Your task to perform on an android device: Show me the alarms in the clock app Image 0: 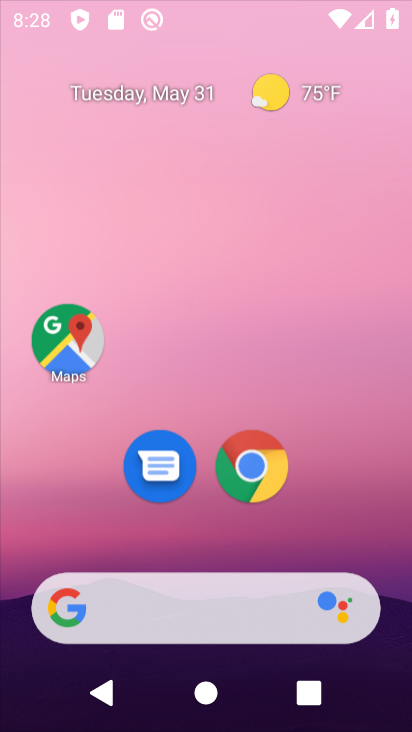
Step 0: click (306, 157)
Your task to perform on an android device: Show me the alarms in the clock app Image 1: 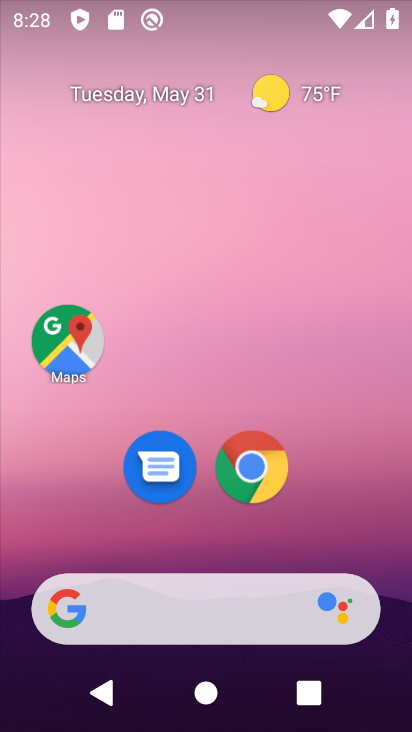
Step 1: drag from (208, 561) to (254, 103)
Your task to perform on an android device: Show me the alarms in the clock app Image 2: 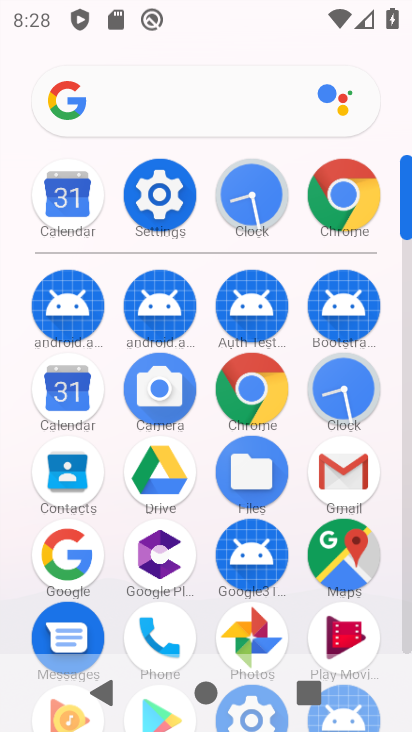
Step 2: click (360, 360)
Your task to perform on an android device: Show me the alarms in the clock app Image 3: 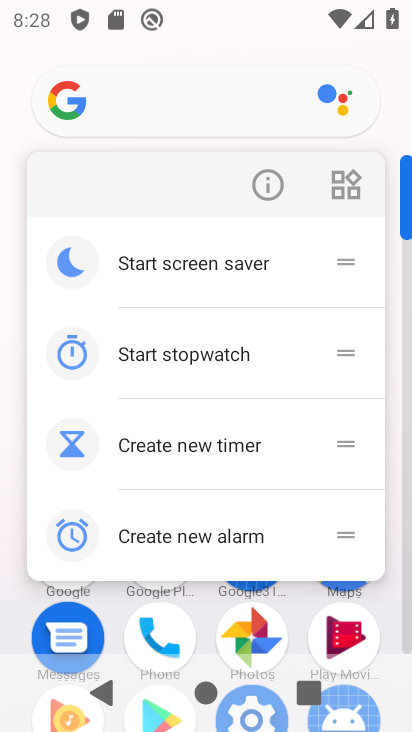
Step 3: click (269, 184)
Your task to perform on an android device: Show me the alarms in the clock app Image 4: 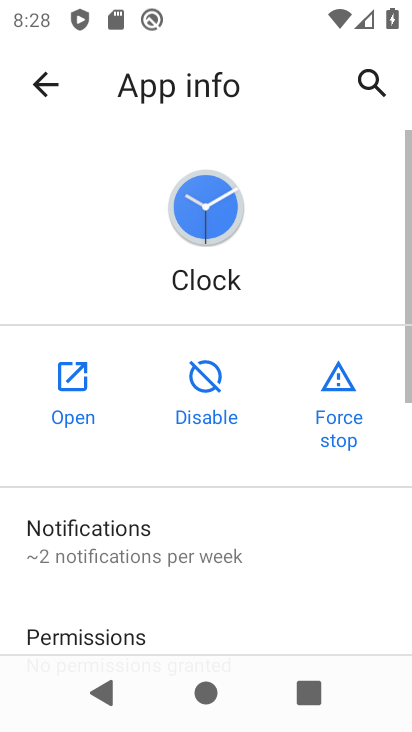
Step 4: click (57, 392)
Your task to perform on an android device: Show me the alarms in the clock app Image 5: 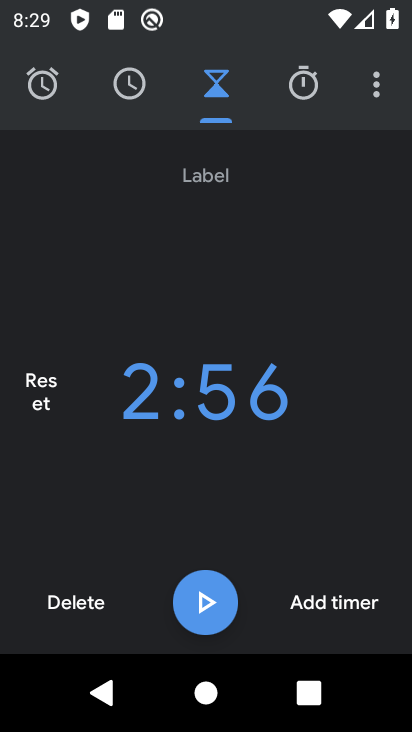
Step 5: click (60, 96)
Your task to perform on an android device: Show me the alarms in the clock app Image 6: 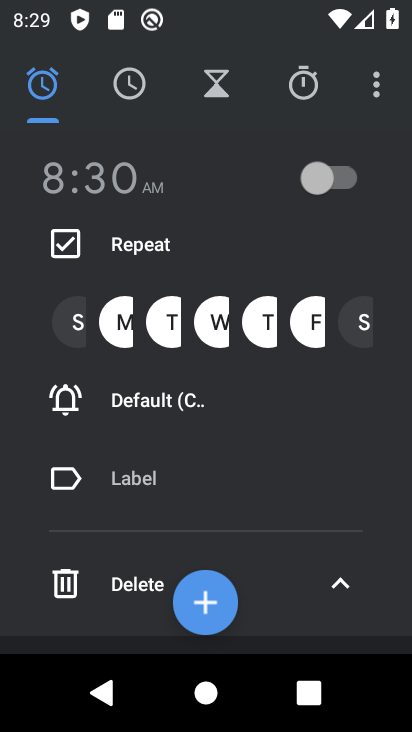
Step 6: task complete